Your task to perform on an android device: refresh tabs in the chrome app Image 0: 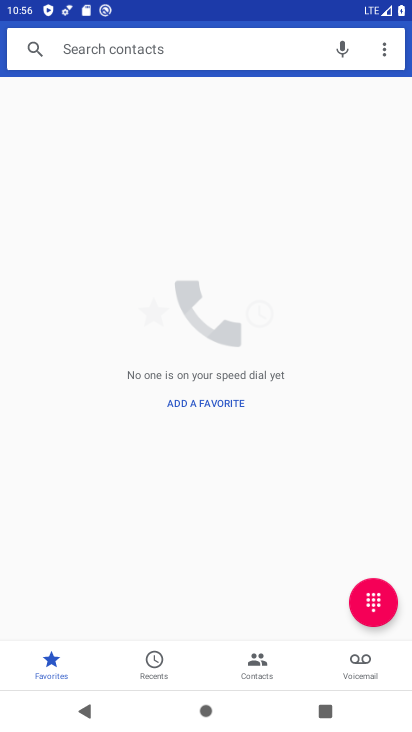
Step 0: press home button
Your task to perform on an android device: refresh tabs in the chrome app Image 1: 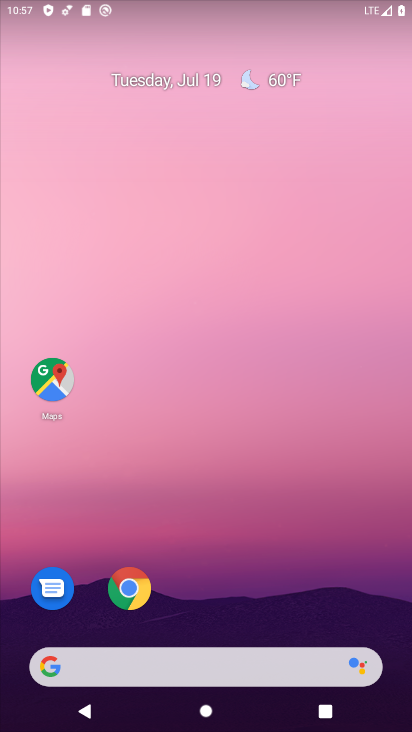
Step 1: drag from (304, 567) to (17, 115)
Your task to perform on an android device: refresh tabs in the chrome app Image 2: 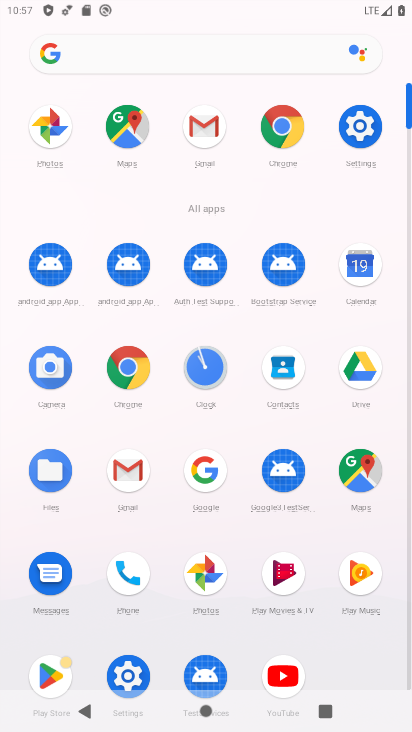
Step 2: click (304, 109)
Your task to perform on an android device: refresh tabs in the chrome app Image 3: 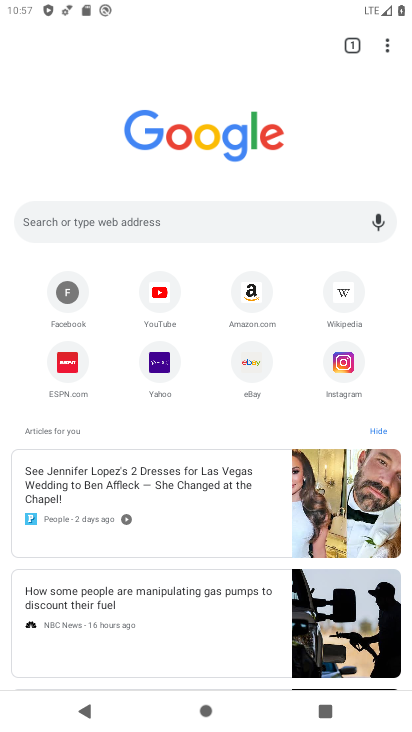
Step 3: click (391, 49)
Your task to perform on an android device: refresh tabs in the chrome app Image 4: 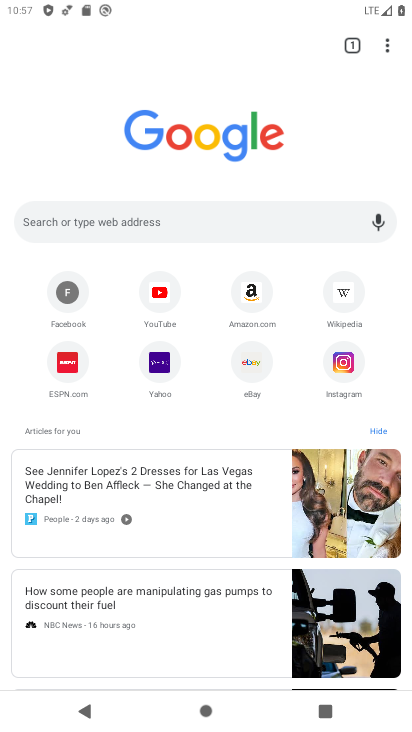
Step 4: task complete